Your task to perform on an android device: delete browsing data in the chrome app Image 0: 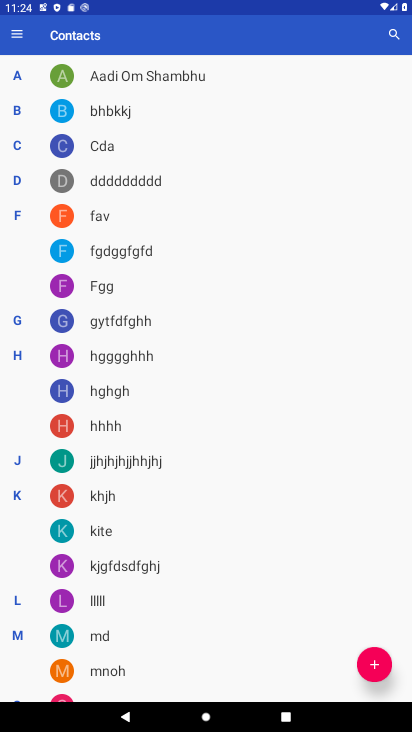
Step 0: press home button
Your task to perform on an android device: delete browsing data in the chrome app Image 1: 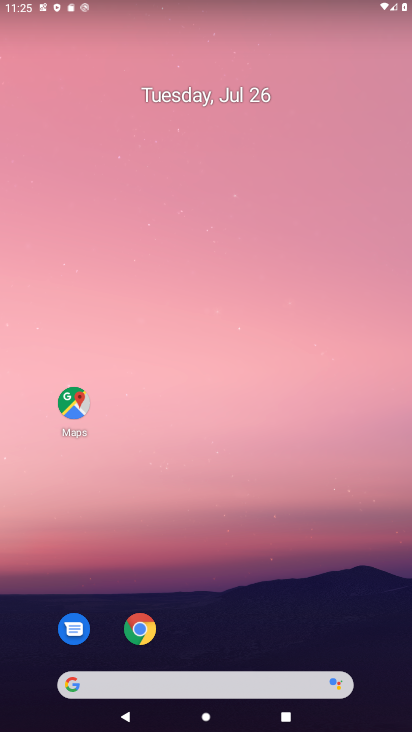
Step 1: click (132, 629)
Your task to perform on an android device: delete browsing data in the chrome app Image 2: 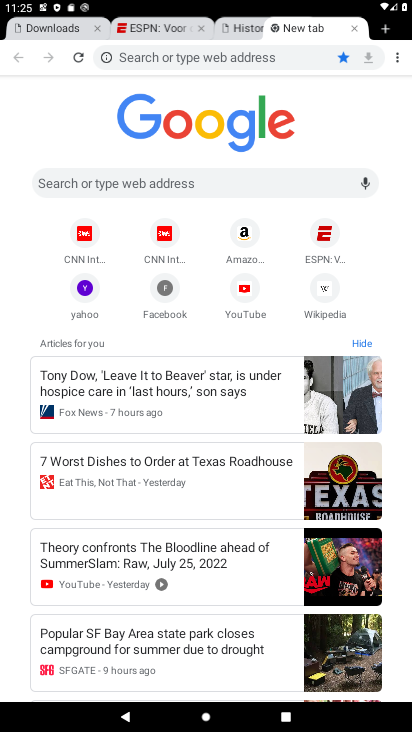
Step 2: click (398, 55)
Your task to perform on an android device: delete browsing data in the chrome app Image 3: 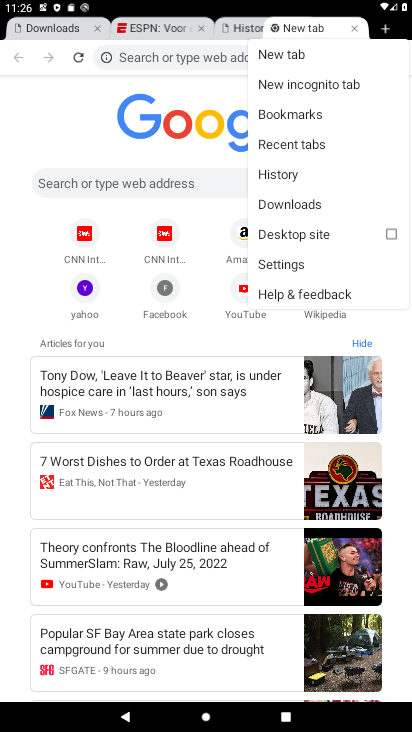
Step 3: click (293, 263)
Your task to perform on an android device: delete browsing data in the chrome app Image 4: 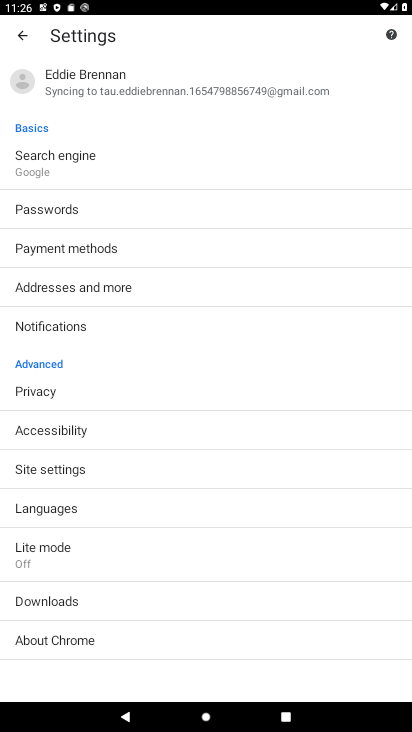
Step 4: task complete